Your task to perform on an android device: add a contact in the contacts app Image 0: 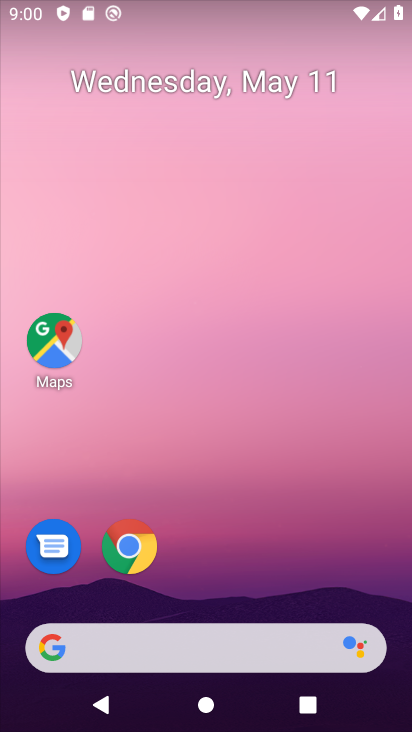
Step 0: drag from (195, 606) to (316, 112)
Your task to perform on an android device: add a contact in the contacts app Image 1: 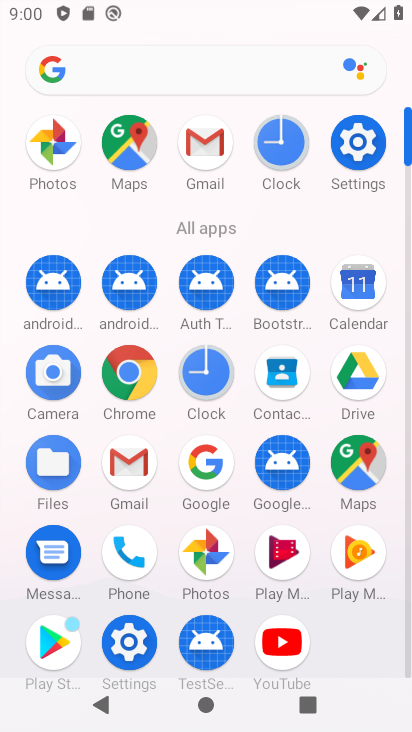
Step 1: click (278, 383)
Your task to perform on an android device: add a contact in the contacts app Image 2: 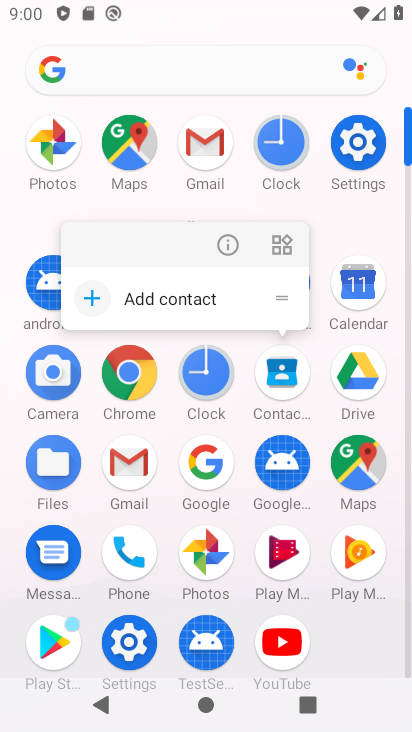
Step 2: click (282, 371)
Your task to perform on an android device: add a contact in the contacts app Image 3: 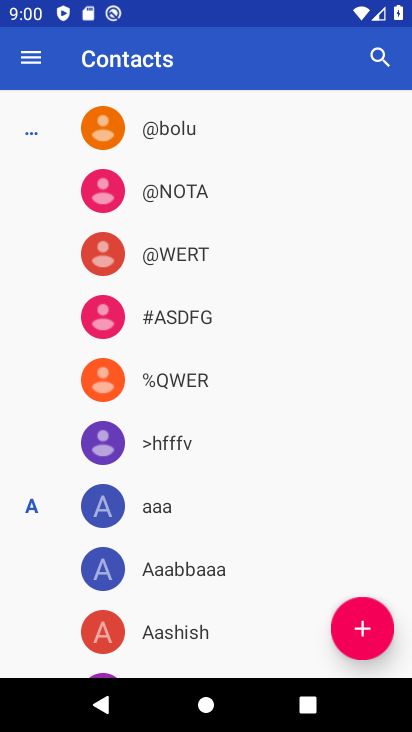
Step 3: click (351, 618)
Your task to perform on an android device: add a contact in the contacts app Image 4: 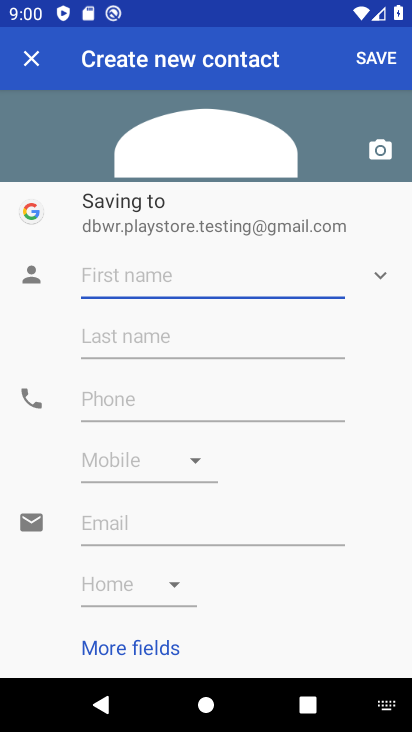
Step 4: type "cbcbcbcbc"
Your task to perform on an android device: add a contact in the contacts app Image 5: 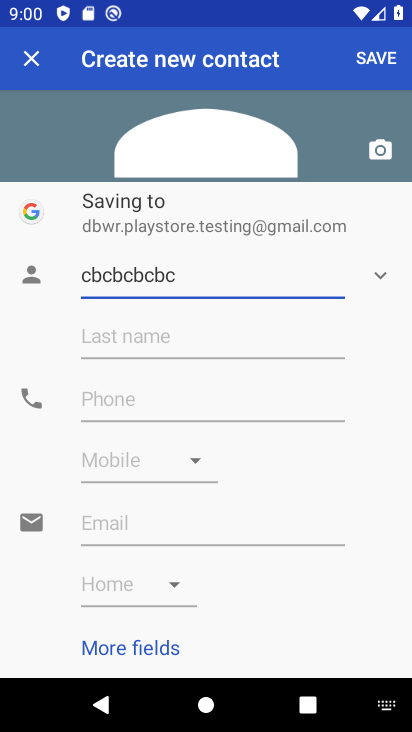
Step 5: click (115, 405)
Your task to perform on an android device: add a contact in the contacts app Image 6: 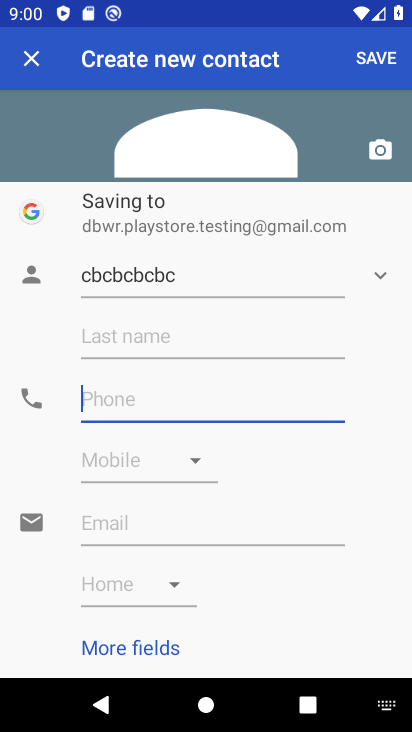
Step 6: type "989812111"
Your task to perform on an android device: add a contact in the contacts app Image 7: 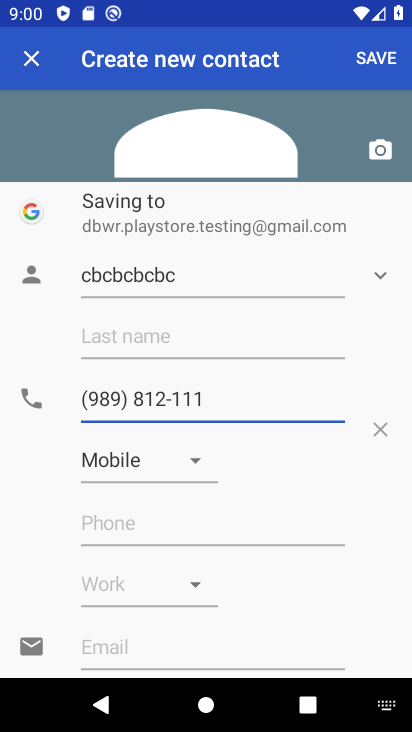
Step 7: type "1"
Your task to perform on an android device: add a contact in the contacts app Image 8: 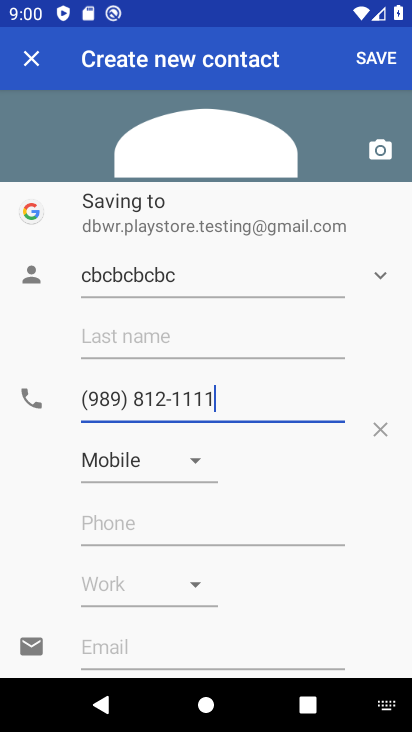
Step 8: click (381, 49)
Your task to perform on an android device: add a contact in the contacts app Image 9: 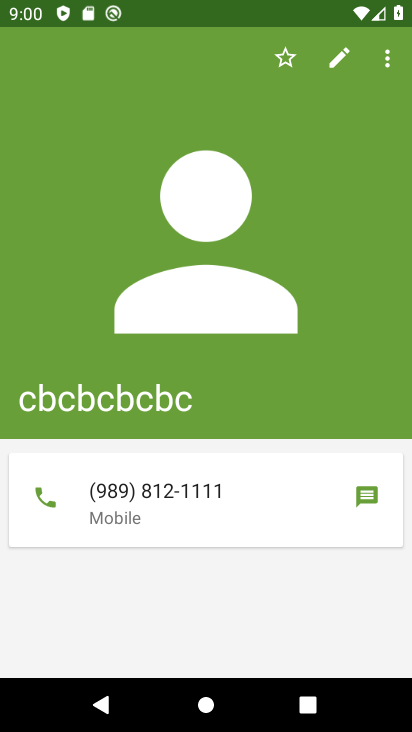
Step 9: task complete